Your task to perform on an android device: turn off location Image 0: 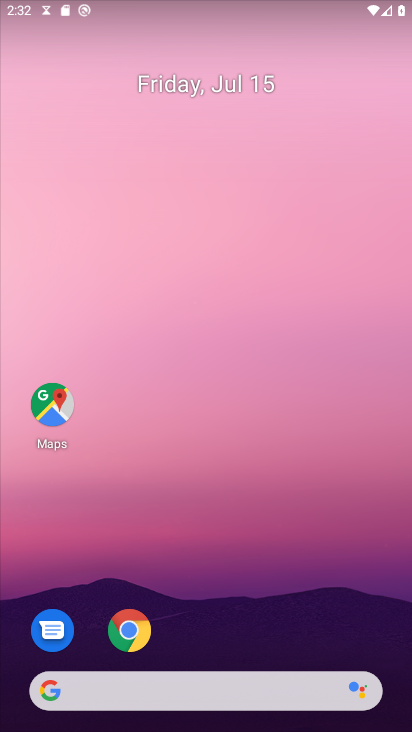
Step 0: drag from (306, 607) to (399, 0)
Your task to perform on an android device: turn off location Image 1: 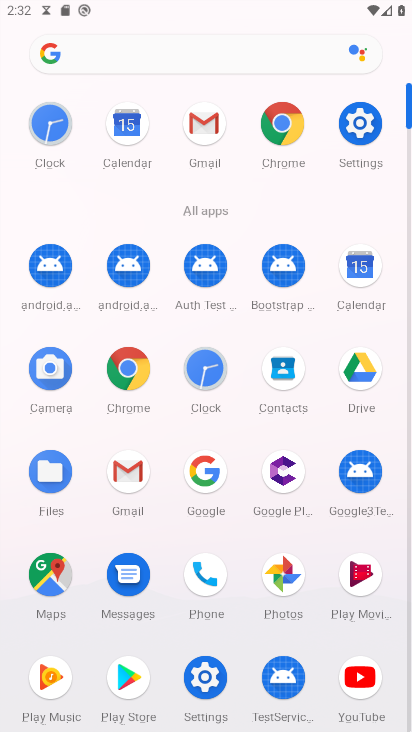
Step 1: click (365, 133)
Your task to perform on an android device: turn off location Image 2: 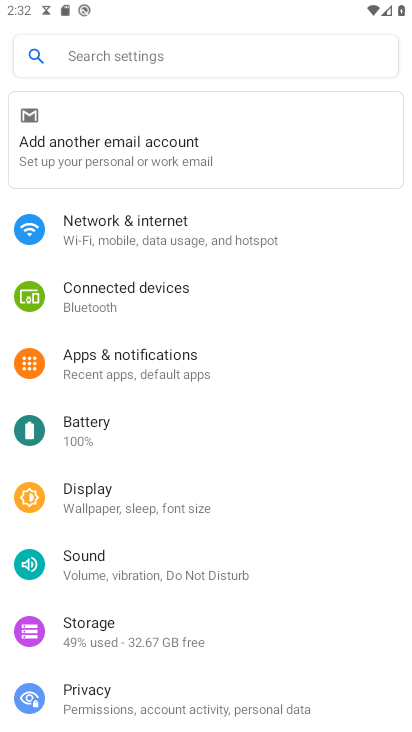
Step 2: drag from (184, 664) to (294, 213)
Your task to perform on an android device: turn off location Image 3: 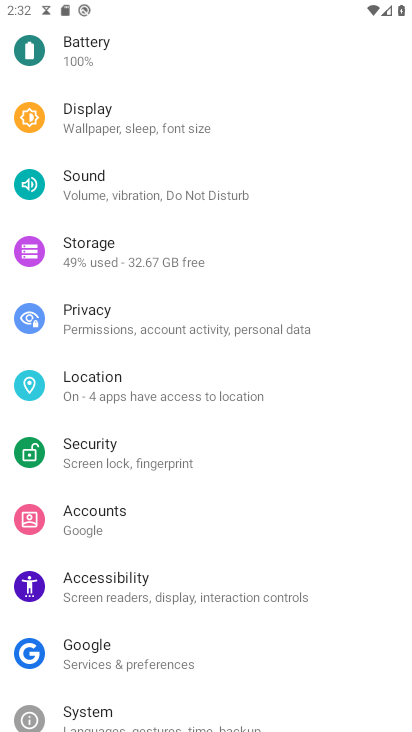
Step 3: click (94, 389)
Your task to perform on an android device: turn off location Image 4: 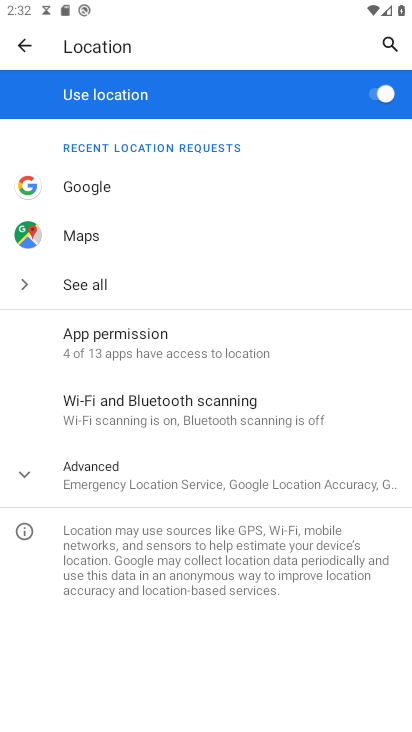
Step 4: click (385, 83)
Your task to perform on an android device: turn off location Image 5: 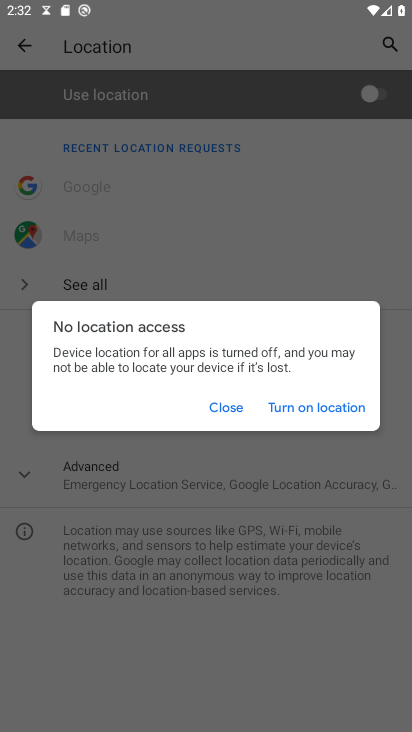
Step 5: task complete